Your task to perform on an android device: allow notifications from all sites in the chrome app Image 0: 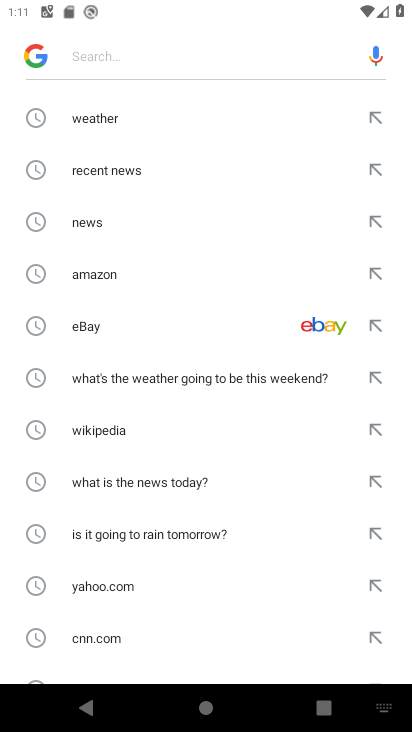
Step 0: press home button
Your task to perform on an android device: allow notifications from all sites in the chrome app Image 1: 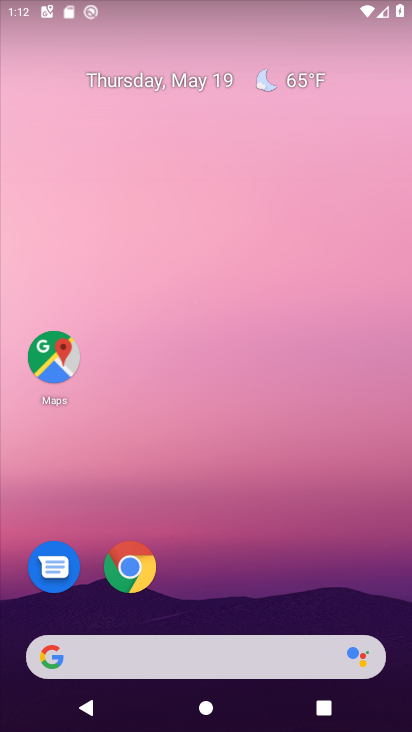
Step 1: click (118, 560)
Your task to perform on an android device: allow notifications from all sites in the chrome app Image 2: 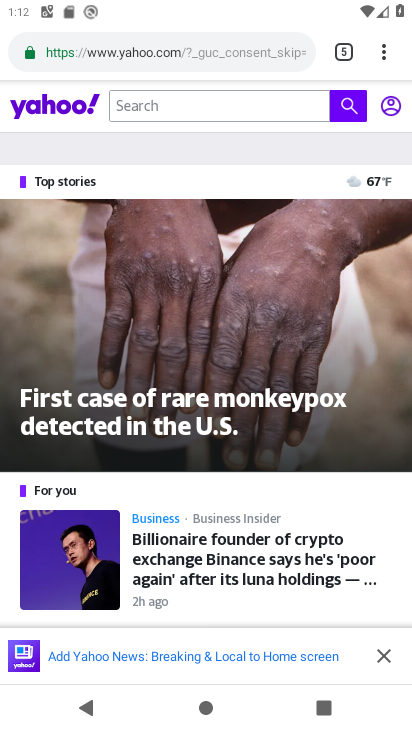
Step 2: click (385, 40)
Your task to perform on an android device: allow notifications from all sites in the chrome app Image 3: 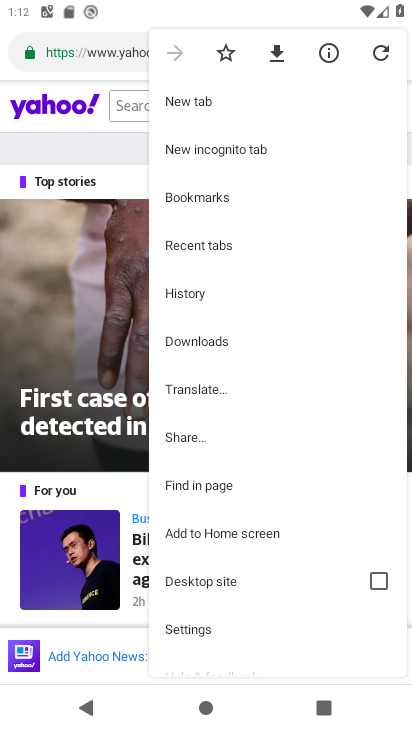
Step 3: drag from (276, 574) to (332, 140)
Your task to perform on an android device: allow notifications from all sites in the chrome app Image 4: 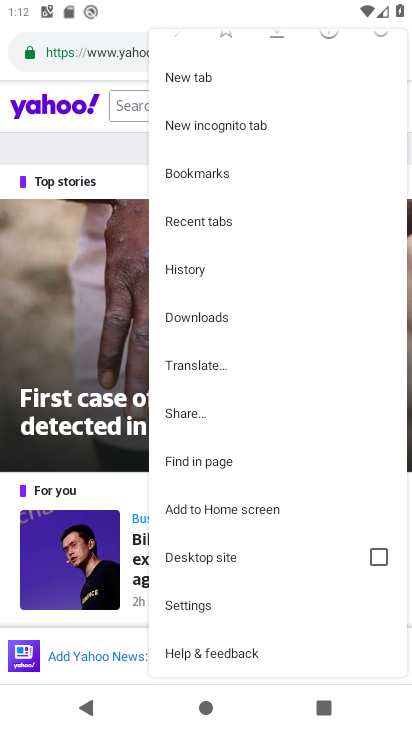
Step 4: click (164, 599)
Your task to perform on an android device: allow notifications from all sites in the chrome app Image 5: 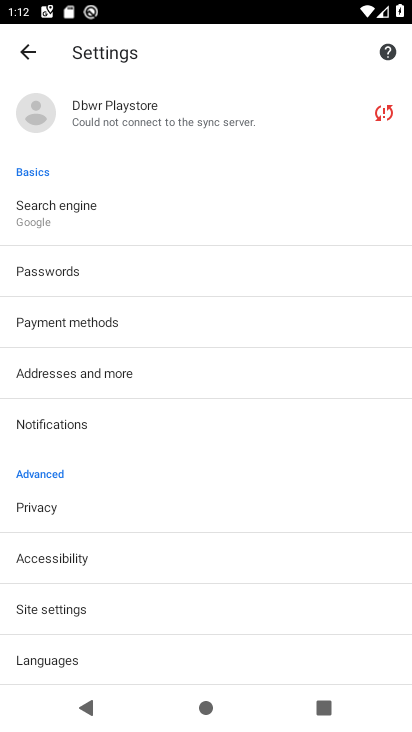
Step 5: click (44, 596)
Your task to perform on an android device: allow notifications from all sites in the chrome app Image 6: 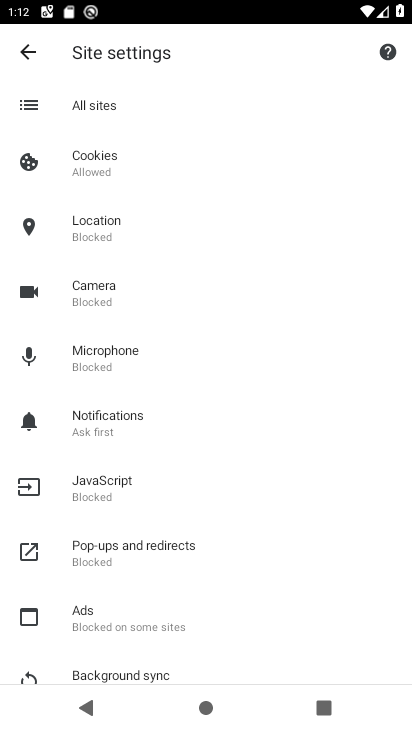
Step 6: click (150, 104)
Your task to perform on an android device: allow notifications from all sites in the chrome app Image 7: 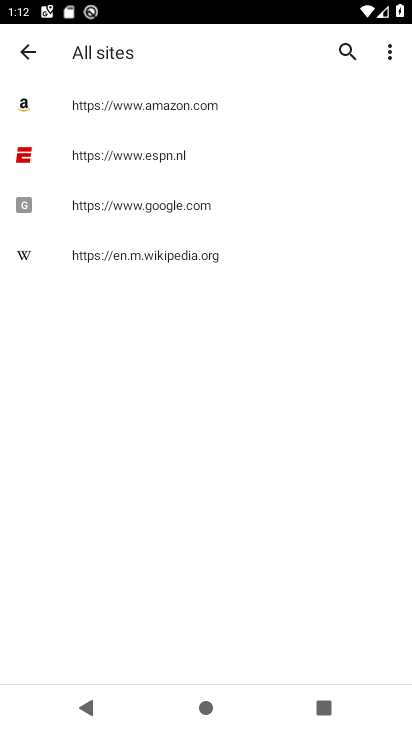
Step 7: click (375, 42)
Your task to perform on an android device: allow notifications from all sites in the chrome app Image 8: 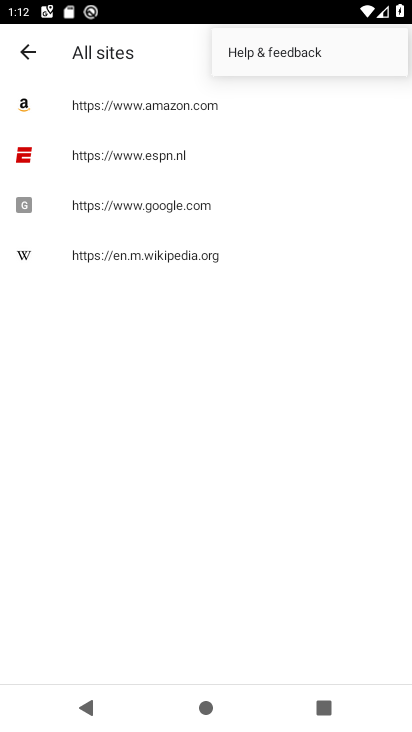
Step 8: press back button
Your task to perform on an android device: allow notifications from all sites in the chrome app Image 9: 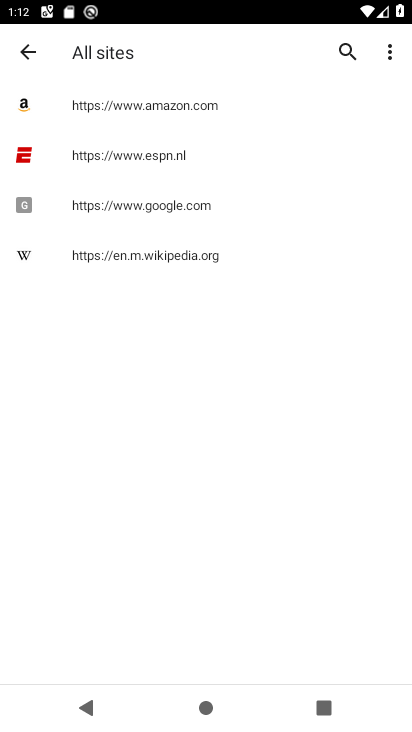
Step 9: press back button
Your task to perform on an android device: allow notifications from all sites in the chrome app Image 10: 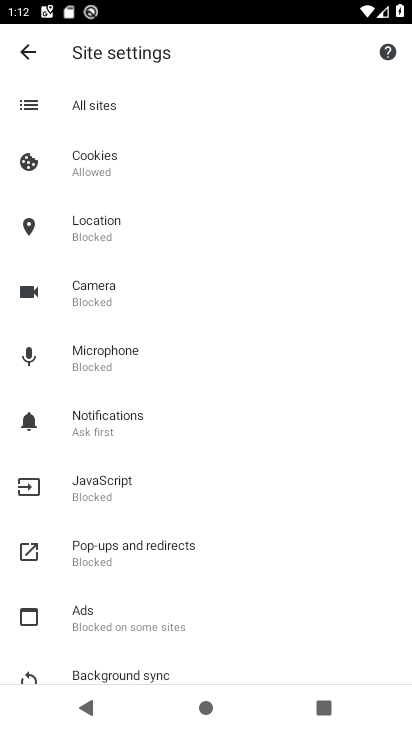
Step 10: click (85, 414)
Your task to perform on an android device: allow notifications from all sites in the chrome app Image 11: 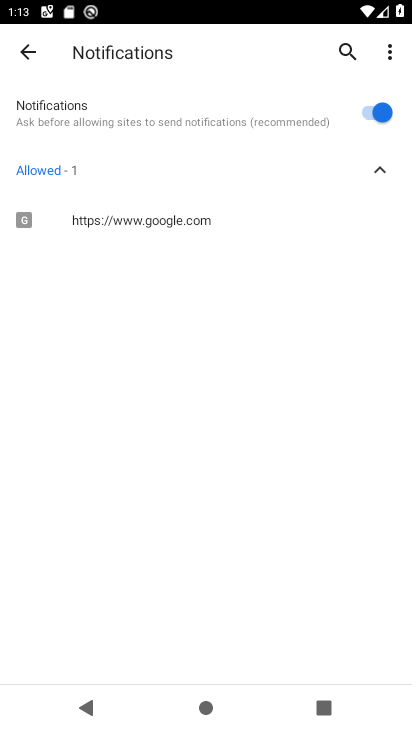
Step 11: task complete